Your task to perform on an android device: change keyboard looks Image 0: 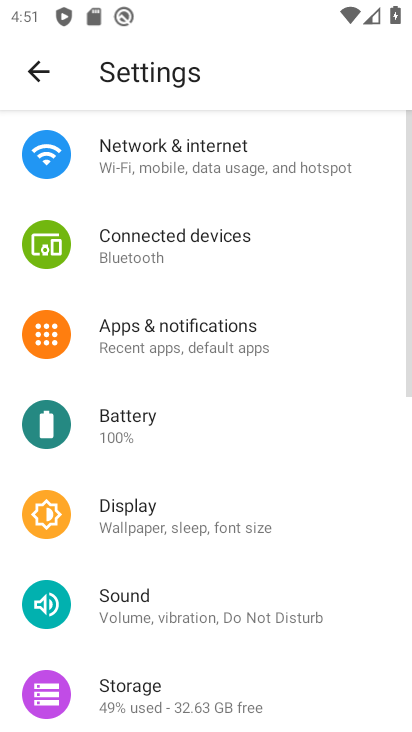
Step 0: press home button
Your task to perform on an android device: change keyboard looks Image 1: 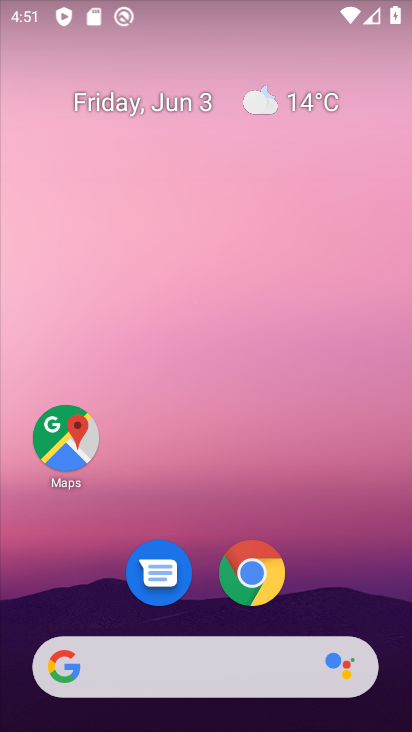
Step 1: drag from (330, 538) to (268, 110)
Your task to perform on an android device: change keyboard looks Image 2: 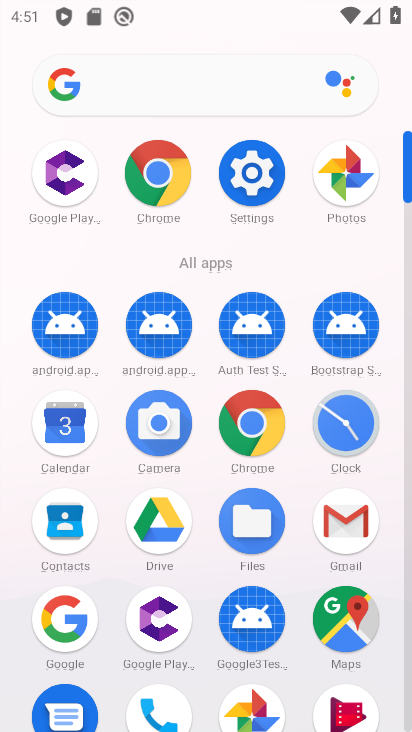
Step 2: click (351, 440)
Your task to perform on an android device: change keyboard looks Image 3: 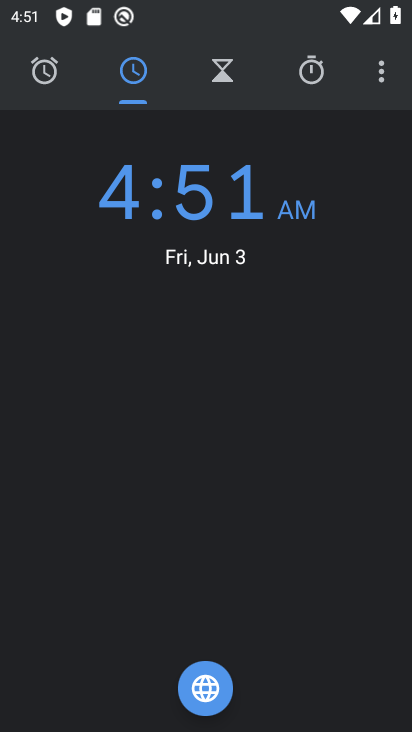
Step 3: press home button
Your task to perform on an android device: change keyboard looks Image 4: 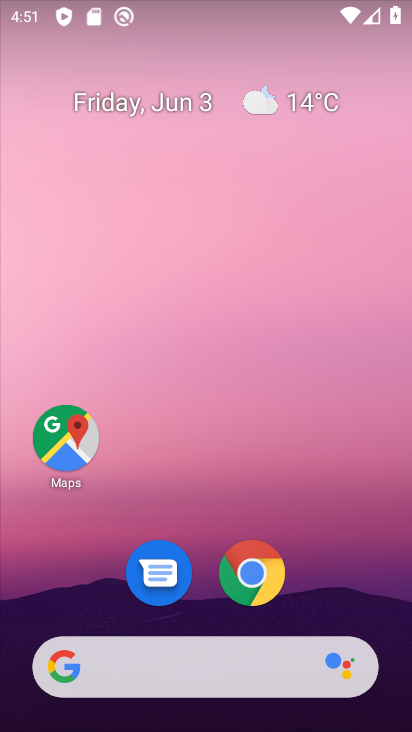
Step 4: drag from (296, 536) to (255, 147)
Your task to perform on an android device: change keyboard looks Image 5: 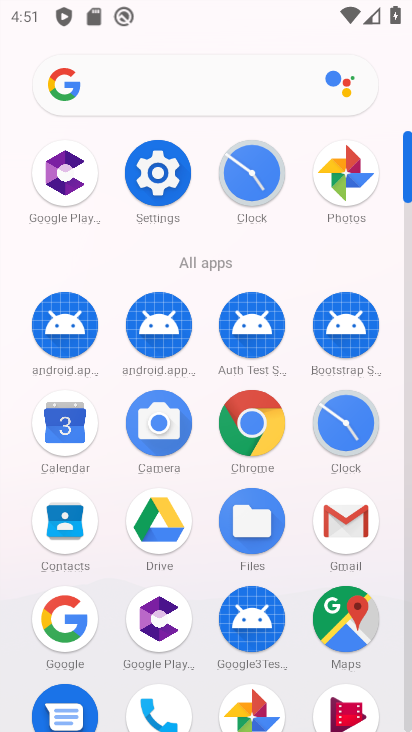
Step 5: click (149, 183)
Your task to perform on an android device: change keyboard looks Image 6: 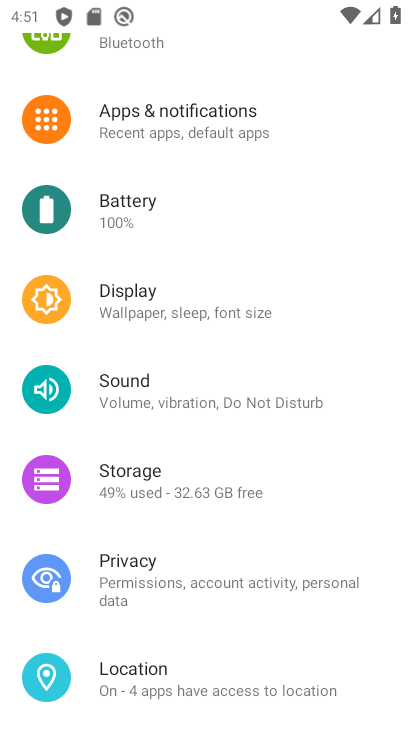
Step 6: drag from (178, 581) to (215, 55)
Your task to perform on an android device: change keyboard looks Image 7: 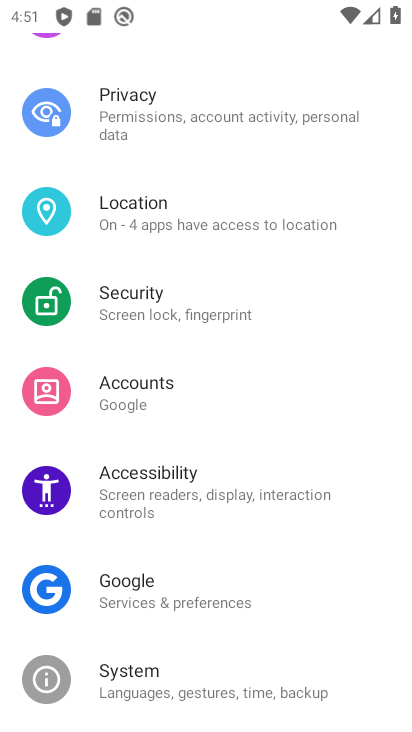
Step 7: drag from (190, 516) to (252, 130)
Your task to perform on an android device: change keyboard looks Image 8: 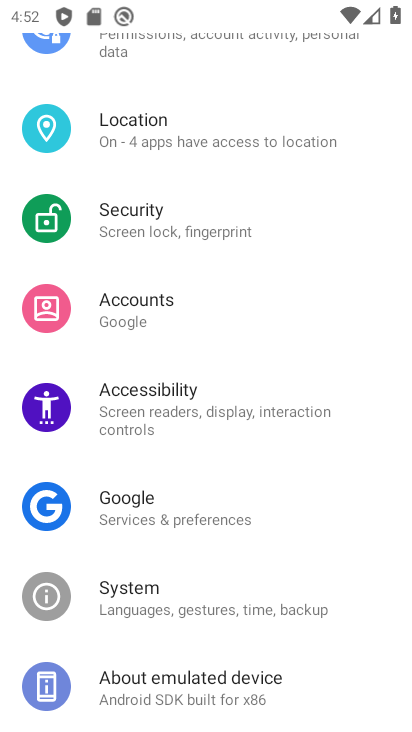
Step 8: click (179, 615)
Your task to perform on an android device: change keyboard looks Image 9: 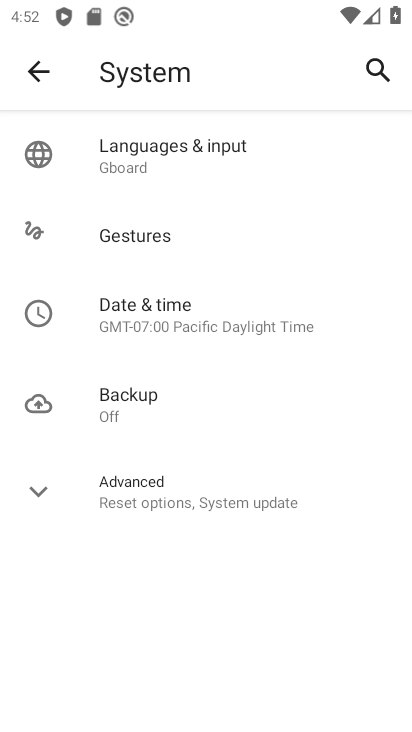
Step 9: click (188, 158)
Your task to perform on an android device: change keyboard looks Image 10: 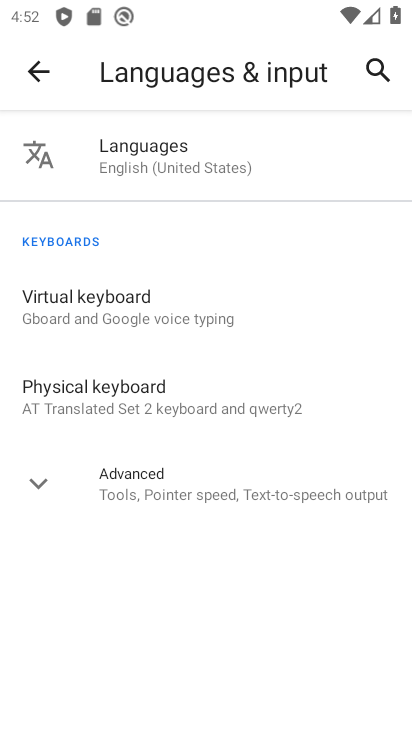
Step 10: click (149, 314)
Your task to perform on an android device: change keyboard looks Image 11: 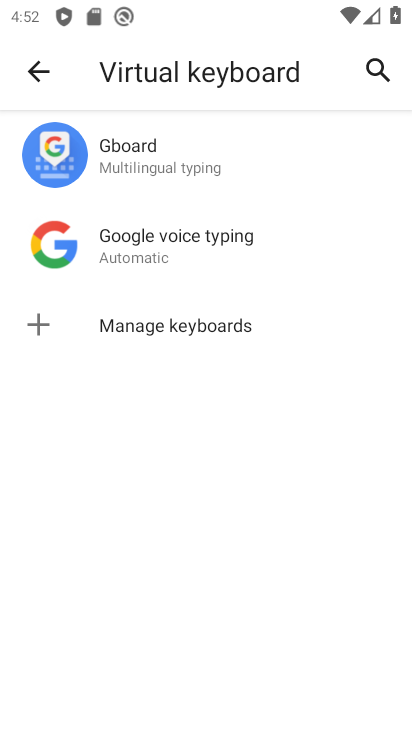
Step 11: click (182, 155)
Your task to perform on an android device: change keyboard looks Image 12: 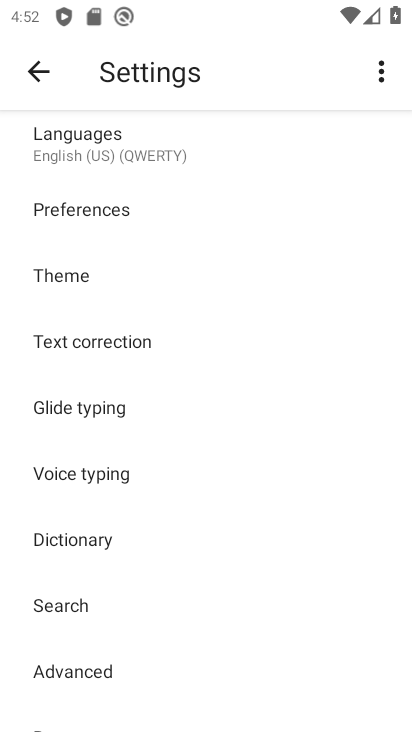
Step 12: click (53, 286)
Your task to perform on an android device: change keyboard looks Image 13: 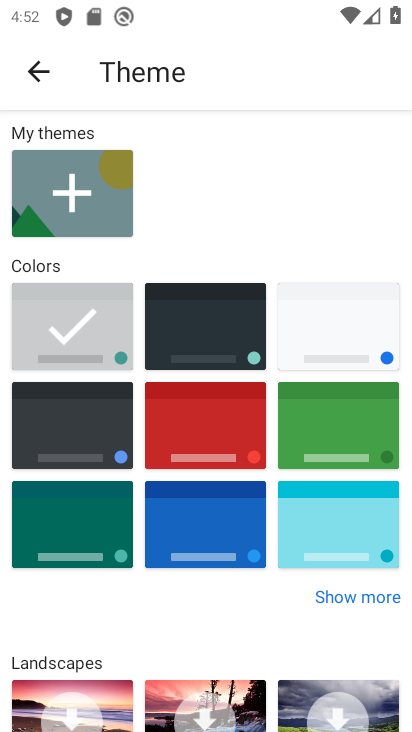
Step 13: click (331, 313)
Your task to perform on an android device: change keyboard looks Image 14: 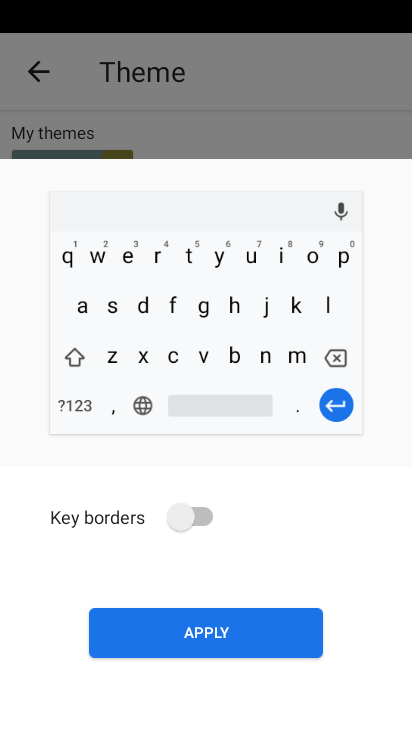
Step 14: click (180, 633)
Your task to perform on an android device: change keyboard looks Image 15: 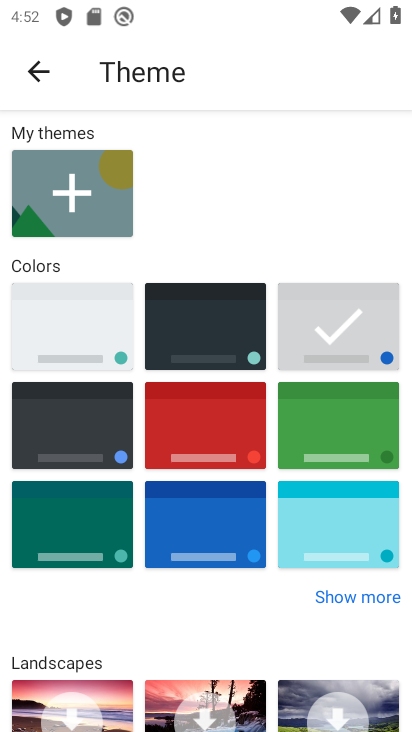
Step 15: task complete